Your task to perform on an android device: install app "YouTube Kids" Image 0: 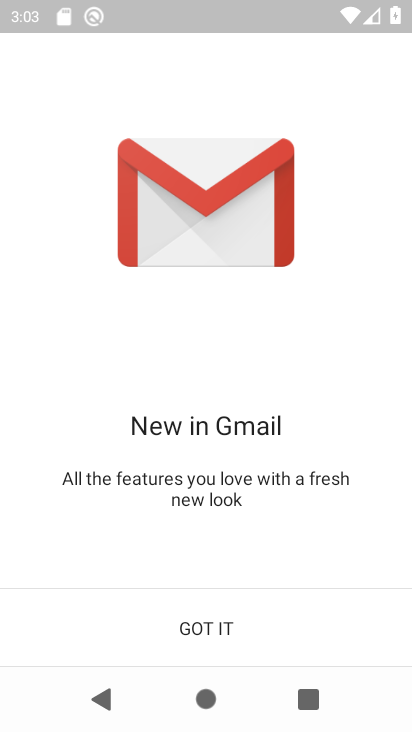
Step 0: press home button
Your task to perform on an android device: install app "YouTube Kids" Image 1: 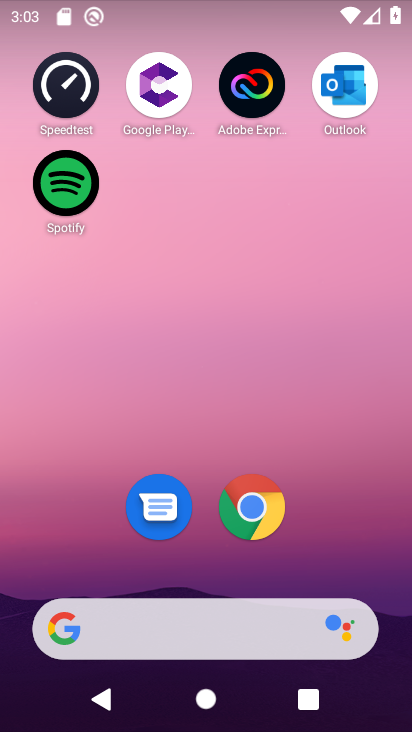
Step 1: drag from (189, 627) to (271, 70)
Your task to perform on an android device: install app "YouTube Kids" Image 2: 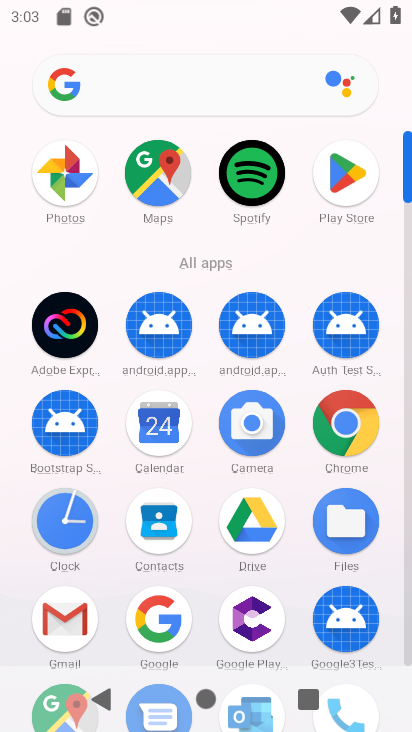
Step 2: click (351, 167)
Your task to perform on an android device: install app "YouTube Kids" Image 3: 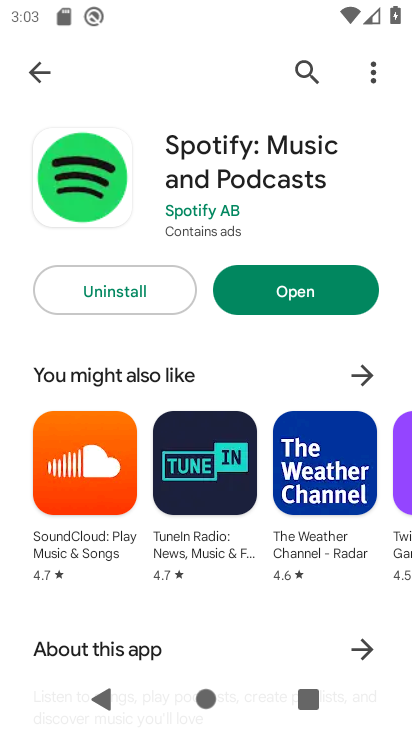
Step 3: press back button
Your task to perform on an android device: install app "YouTube Kids" Image 4: 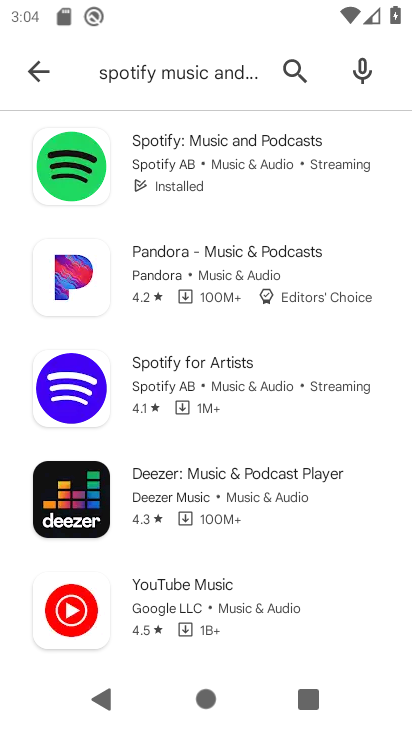
Step 4: press back button
Your task to perform on an android device: install app "YouTube Kids" Image 5: 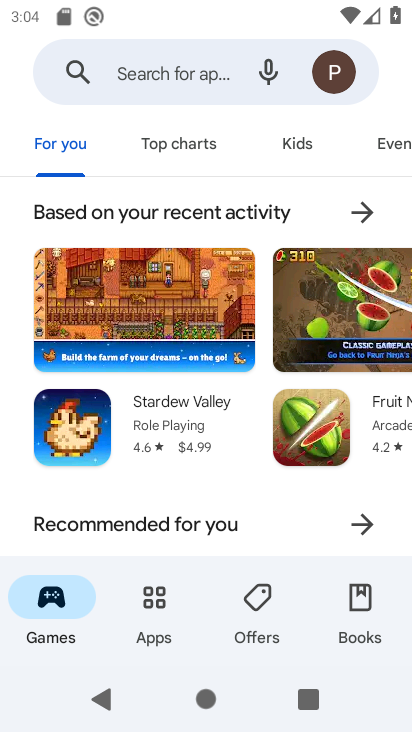
Step 5: click (224, 76)
Your task to perform on an android device: install app "YouTube Kids" Image 6: 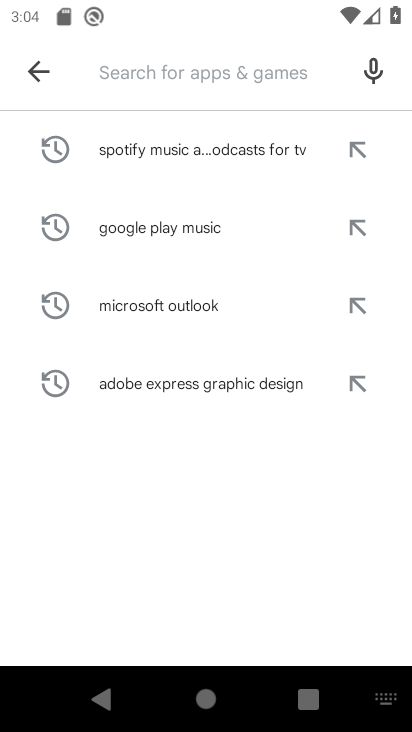
Step 6: type "YouTube Kids"
Your task to perform on an android device: install app "YouTube Kids" Image 7: 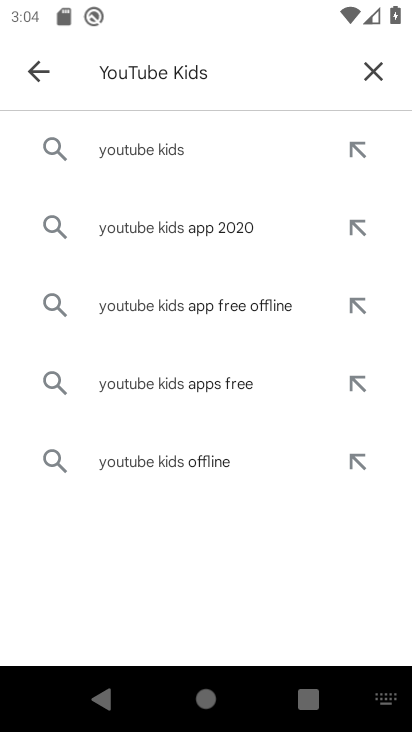
Step 7: click (145, 155)
Your task to perform on an android device: install app "YouTube Kids" Image 8: 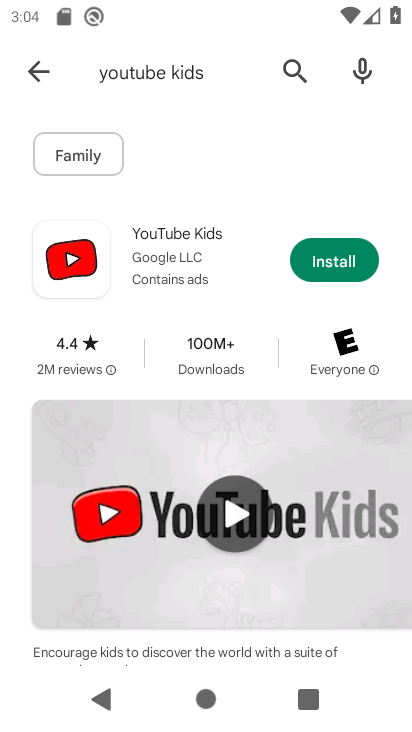
Step 8: click (340, 269)
Your task to perform on an android device: install app "YouTube Kids" Image 9: 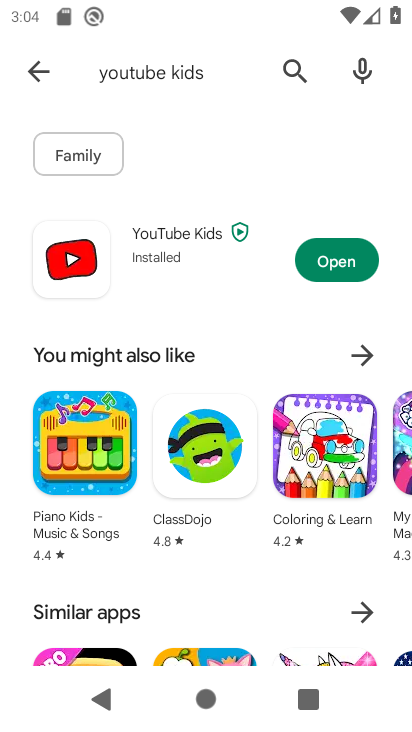
Step 9: task complete